Your task to perform on an android device: Open notification settings Image 0: 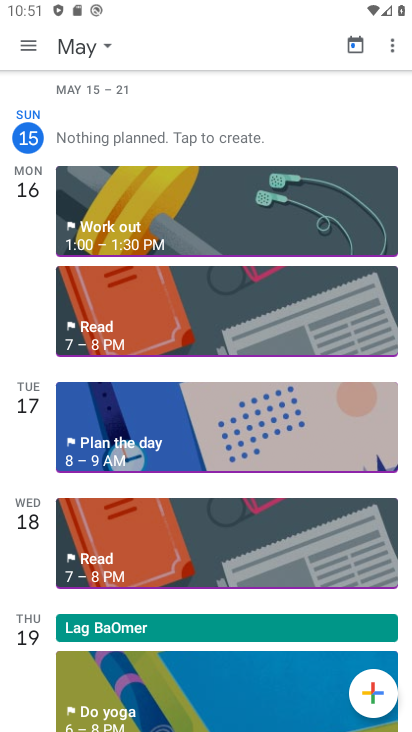
Step 0: press home button
Your task to perform on an android device: Open notification settings Image 1: 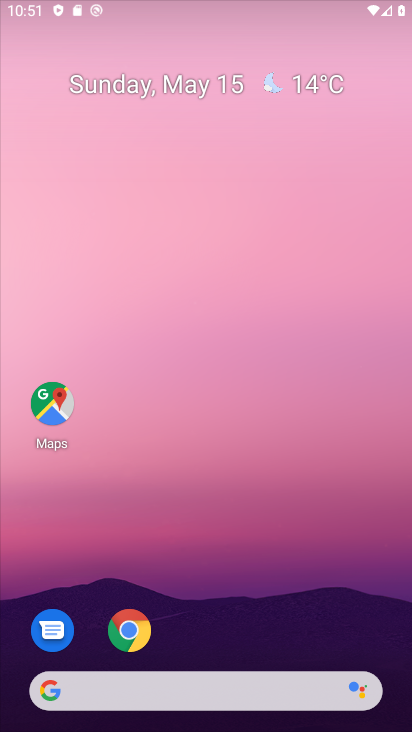
Step 1: drag from (125, 377) to (294, 63)
Your task to perform on an android device: Open notification settings Image 2: 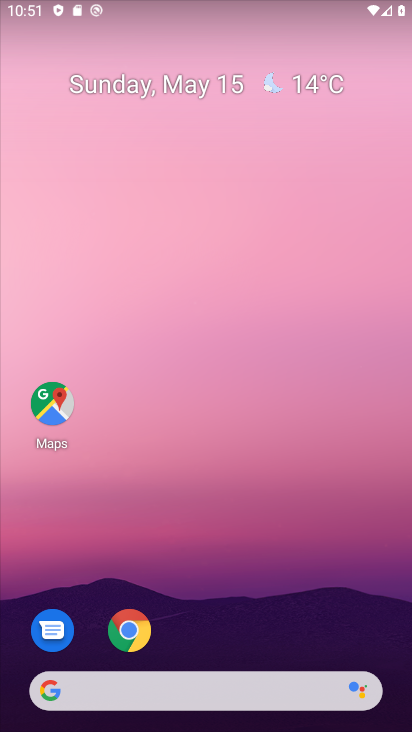
Step 2: drag from (78, 464) to (218, 113)
Your task to perform on an android device: Open notification settings Image 3: 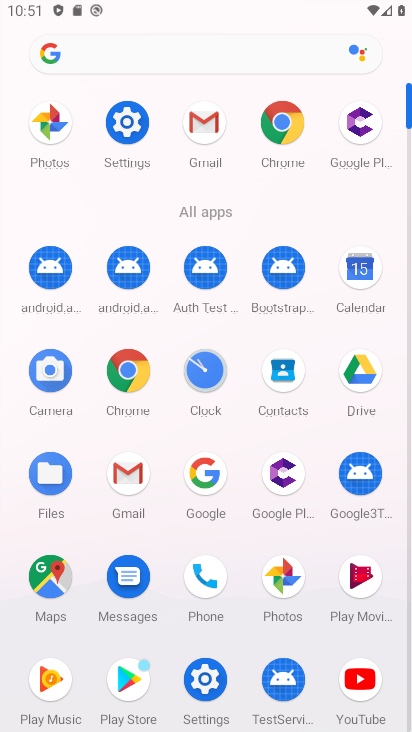
Step 3: click (120, 124)
Your task to perform on an android device: Open notification settings Image 4: 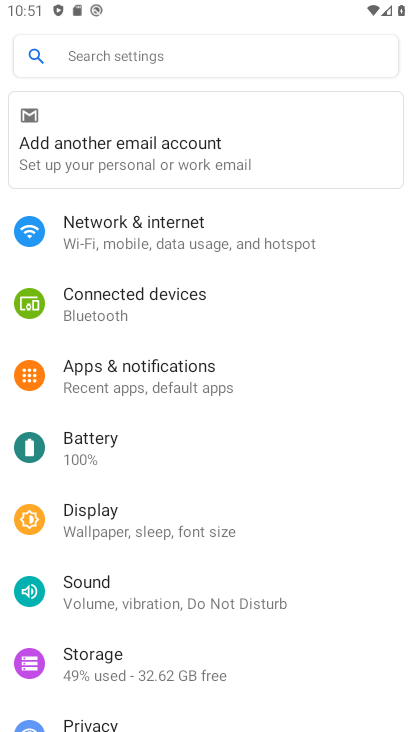
Step 4: click (206, 367)
Your task to perform on an android device: Open notification settings Image 5: 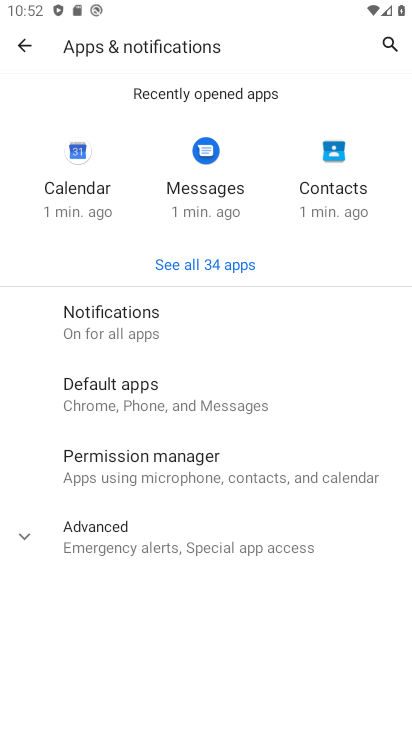
Step 5: click (180, 329)
Your task to perform on an android device: Open notification settings Image 6: 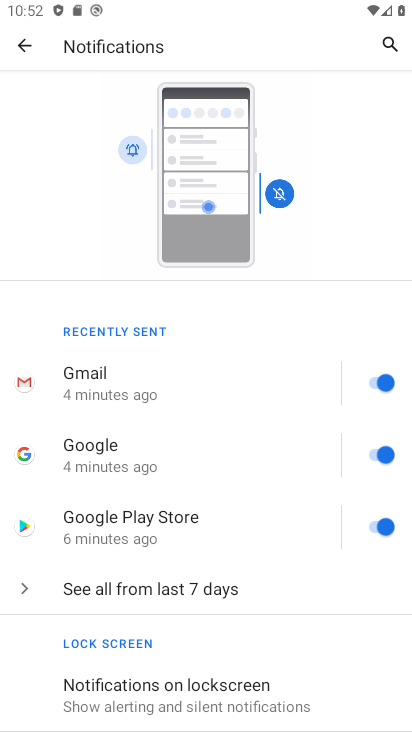
Step 6: task complete